Your task to perform on an android device: turn on priority inbox in the gmail app Image 0: 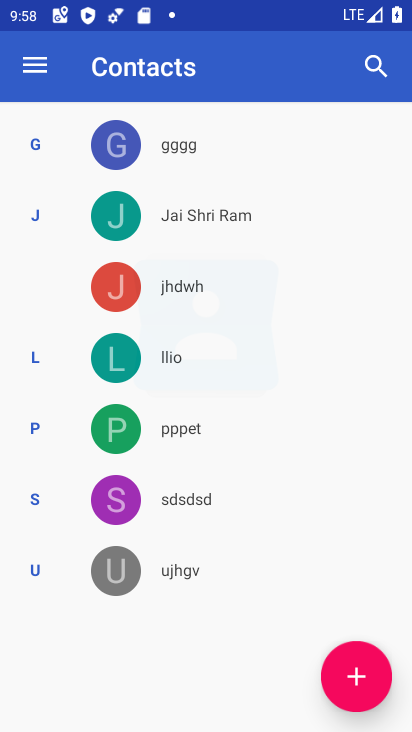
Step 0: press home button
Your task to perform on an android device: turn on priority inbox in the gmail app Image 1: 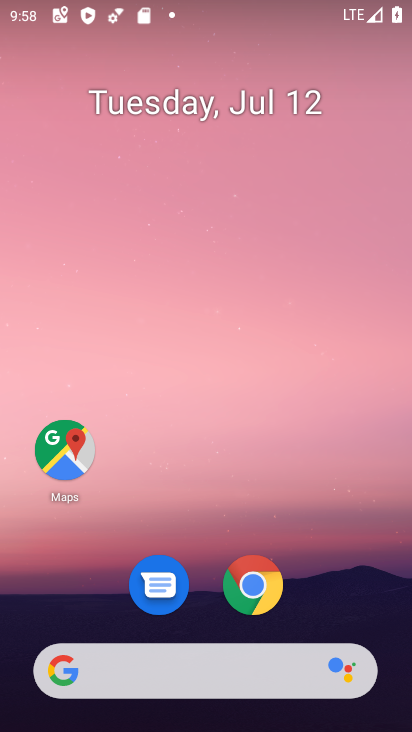
Step 1: drag from (166, 683) to (256, 87)
Your task to perform on an android device: turn on priority inbox in the gmail app Image 2: 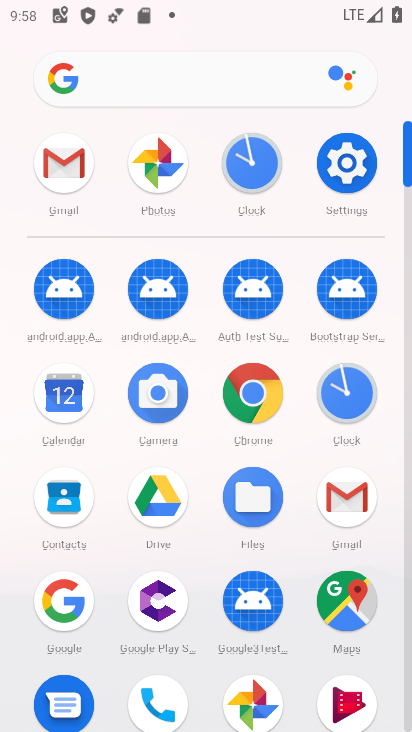
Step 2: click (61, 169)
Your task to perform on an android device: turn on priority inbox in the gmail app Image 3: 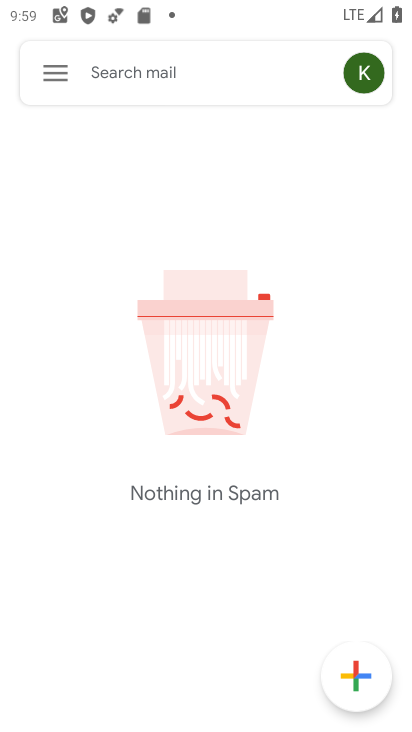
Step 3: click (43, 69)
Your task to perform on an android device: turn on priority inbox in the gmail app Image 4: 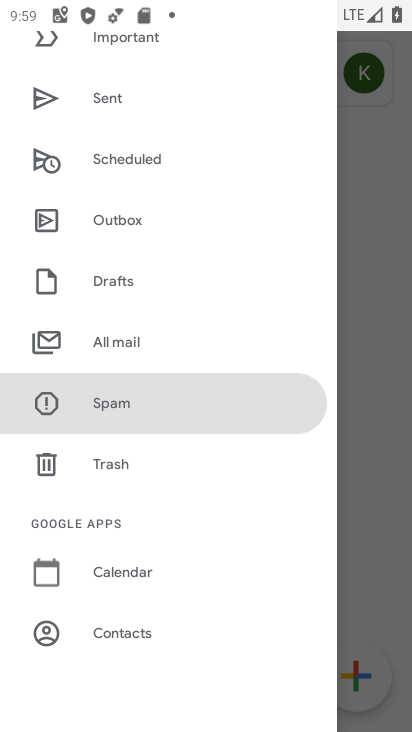
Step 4: drag from (186, 588) to (259, 18)
Your task to perform on an android device: turn on priority inbox in the gmail app Image 5: 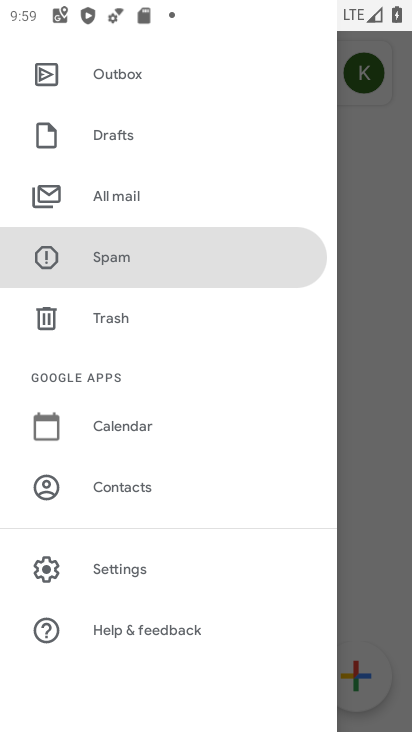
Step 5: click (125, 572)
Your task to perform on an android device: turn on priority inbox in the gmail app Image 6: 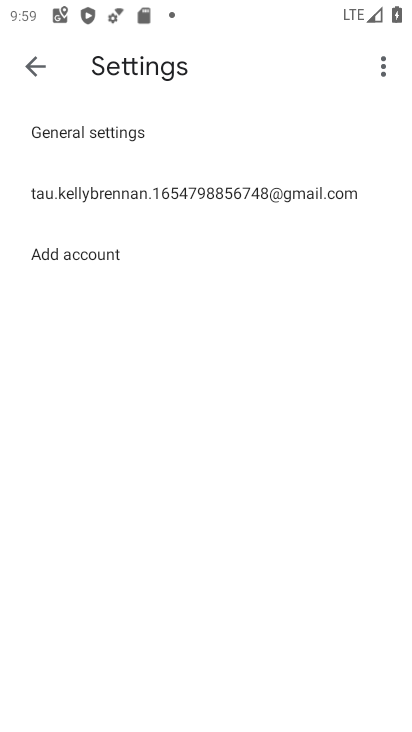
Step 6: click (201, 192)
Your task to perform on an android device: turn on priority inbox in the gmail app Image 7: 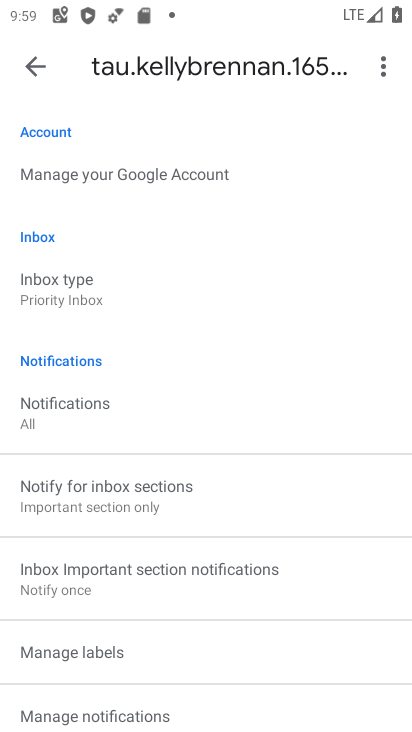
Step 7: click (86, 291)
Your task to perform on an android device: turn on priority inbox in the gmail app Image 8: 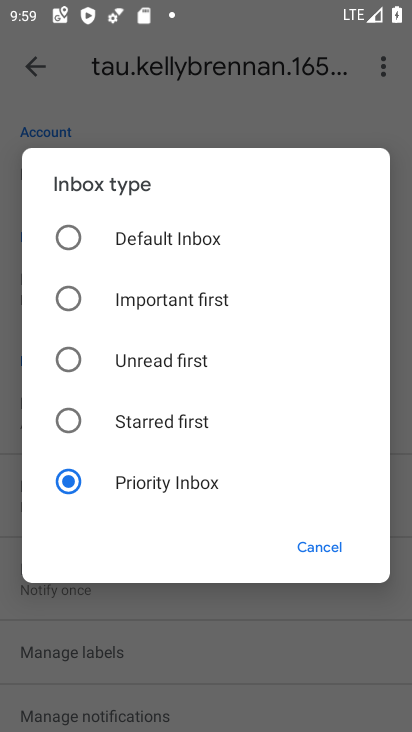
Step 8: task complete